Your task to perform on an android device: Turn off the flashlight Image 0: 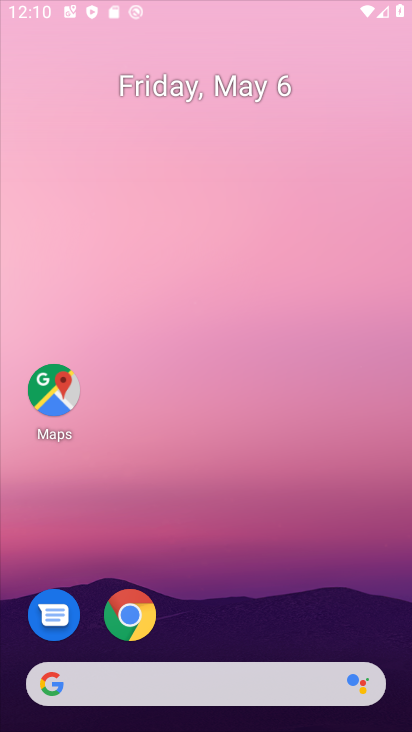
Step 0: click (159, 55)
Your task to perform on an android device: Turn off the flashlight Image 1: 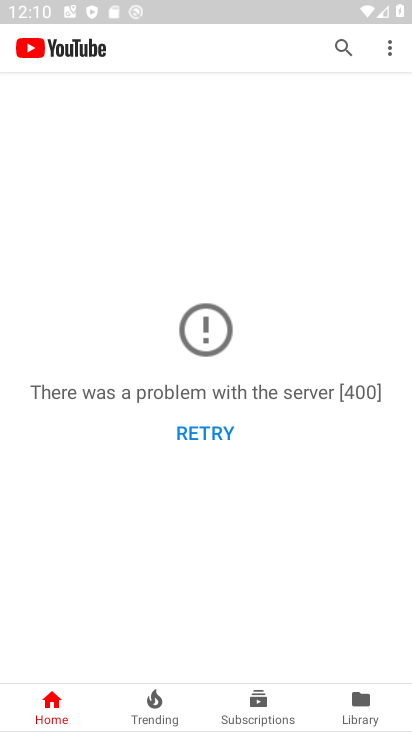
Step 1: task complete